Your task to perform on an android device: open a new tab in the chrome app Image 0: 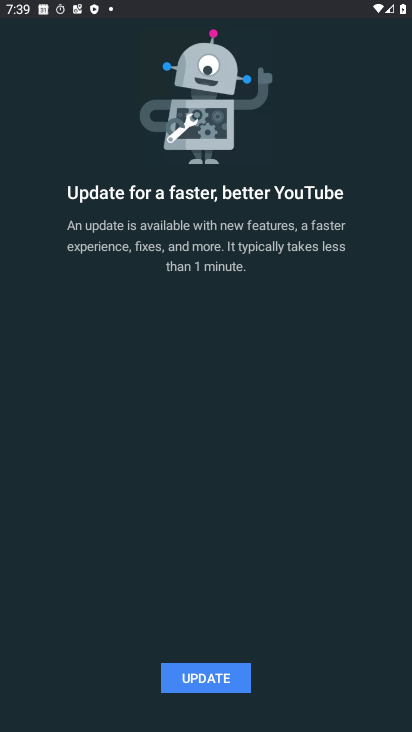
Step 0: press home button
Your task to perform on an android device: open a new tab in the chrome app Image 1: 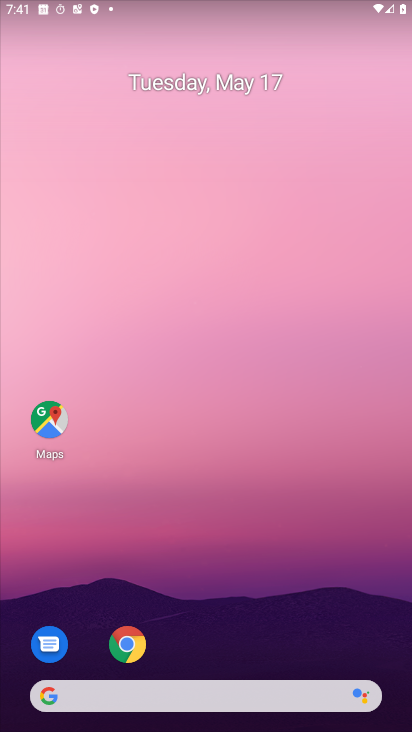
Step 1: click (133, 643)
Your task to perform on an android device: open a new tab in the chrome app Image 2: 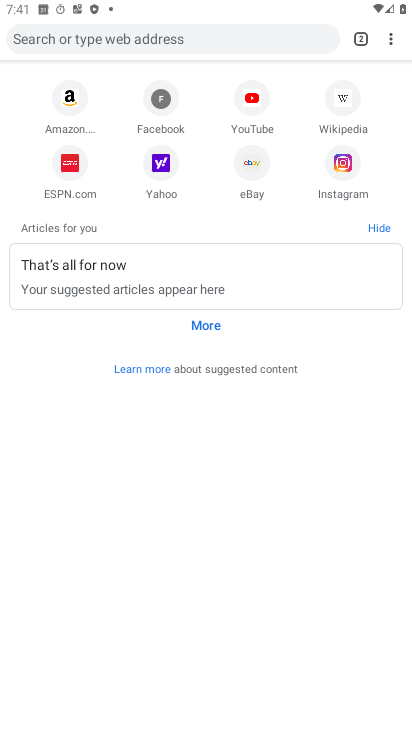
Step 2: click (386, 30)
Your task to perform on an android device: open a new tab in the chrome app Image 3: 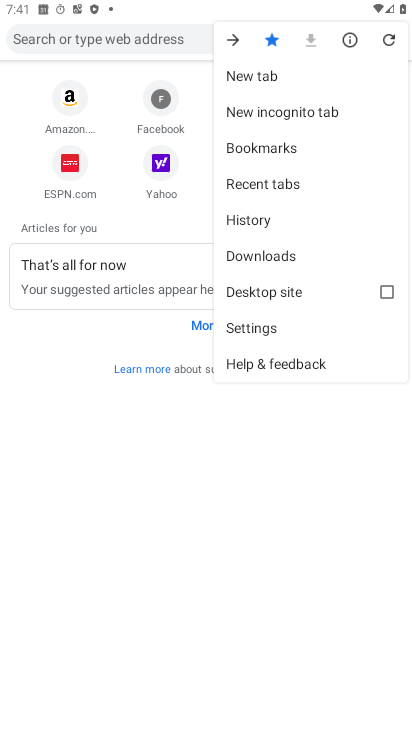
Step 3: click (296, 86)
Your task to perform on an android device: open a new tab in the chrome app Image 4: 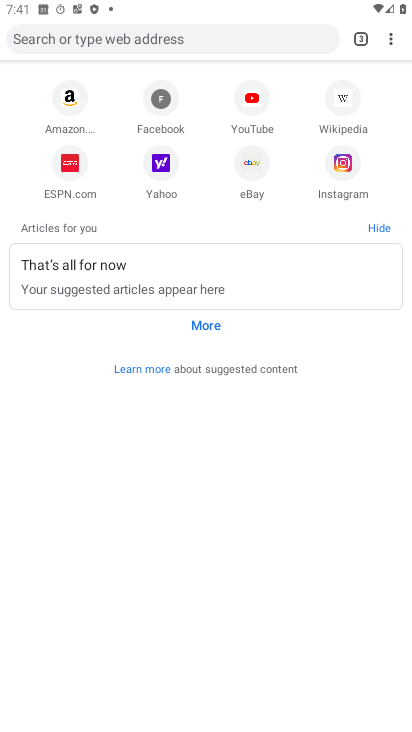
Step 4: task complete